Your task to perform on an android device: search for starred emails in the gmail app Image 0: 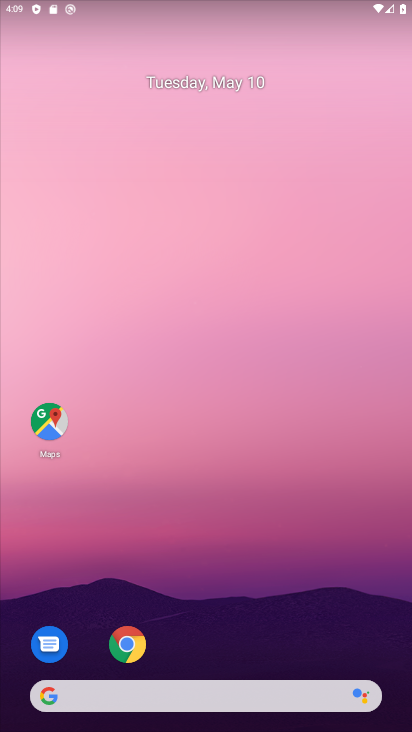
Step 0: drag from (220, 678) to (220, 274)
Your task to perform on an android device: search for starred emails in the gmail app Image 1: 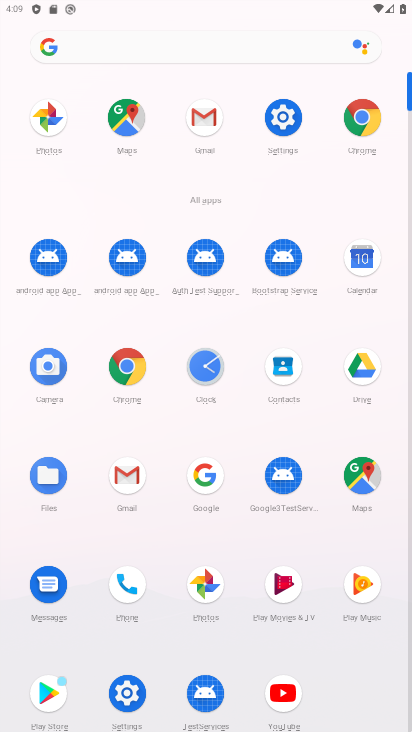
Step 1: click (206, 119)
Your task to perform on an android device: search for starred emails in the gmail app Image 2: 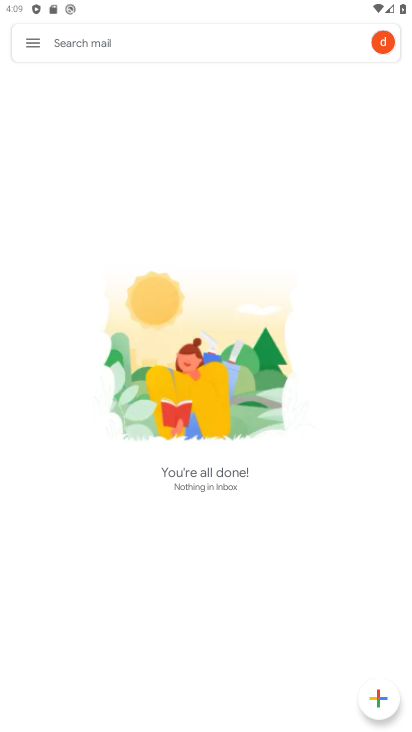
Step 2: click (33, 38)
Your task to perform on an android device: search for starred emails in the gmail app Image 3: 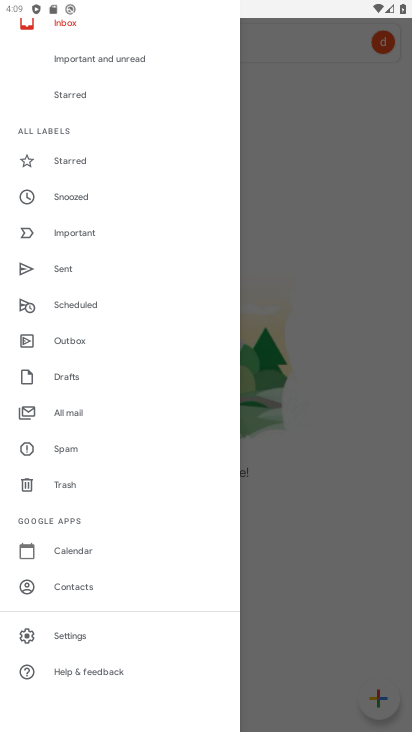
Step 3: click (74, 162)
Your task to perform on an android device: search for starred emails in the gmail app Image 4: 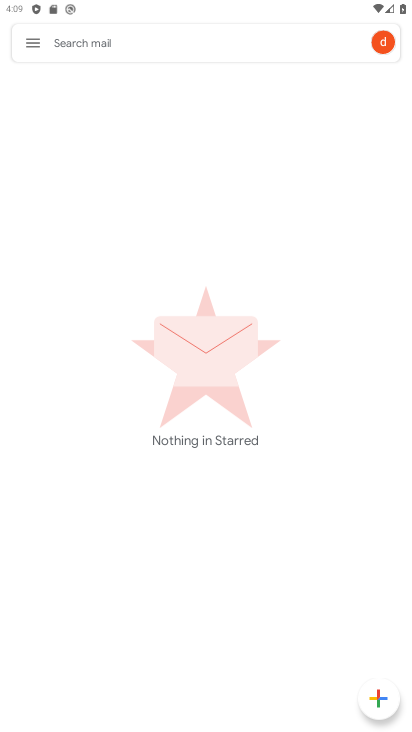
Step 4: task complete